Your task to perform on an android device: Search for the best rated 3d printer on Amazon. Image 0: 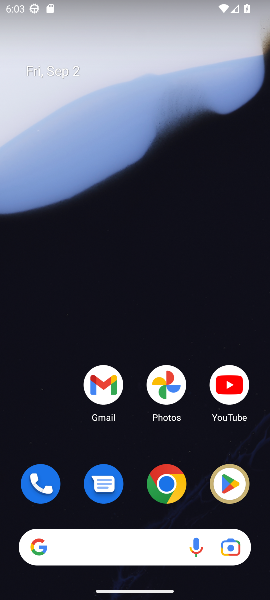
Step 0: click (166, 478)
Your task to perform on an android device: Search for the best rated 3d printer on Amazon. Image 1: 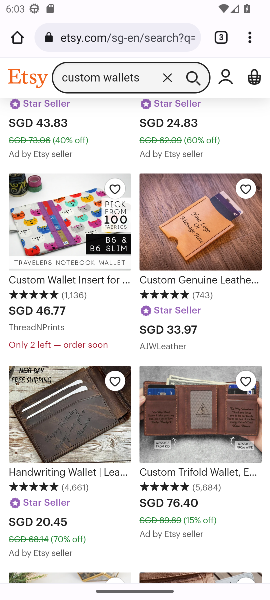
Step 1: click (161, 33)
Your task to perform on an android device: Search for the best rated 3d printer on Amazon. Image 2: 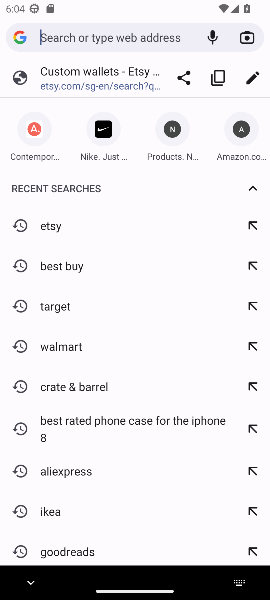
Step 2: type "Amazon"
Your task to perform on an android device: Search for the best rated 3d printer on Amazon. Image 3: 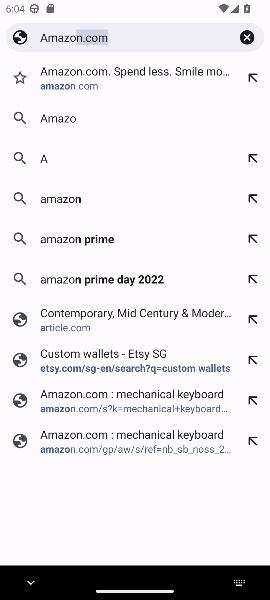
Step 3: press enter
Your task to perform on an android device: Search for the best rated 3d printer on Amazon. Image 4: 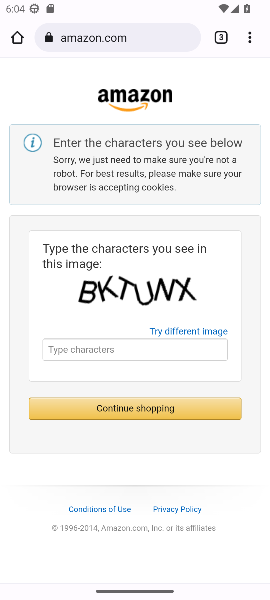
Step 4: press back button
Your task to perform on an android device: Search for the best rated 3d printer on Amazon. Image 5: 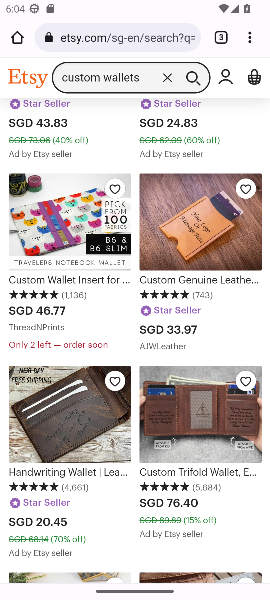
Step 5: click (153, 34)
Your task to perform on an android device: Search for the best rated 3d printer on Amazon. Image 6: 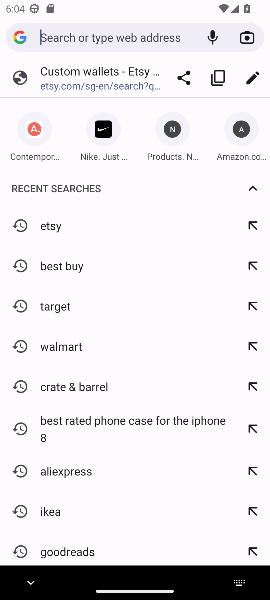
Step 6: type "Amazon"
Your task to perform on an android device: Search for the best rated 3d printer on Amazon. Image 7: 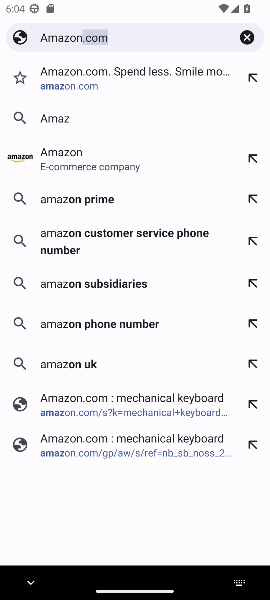
Step 7: press enter
Your task to perform on an android device: Search for the best rated 3d printer on Amazon. Image 8: 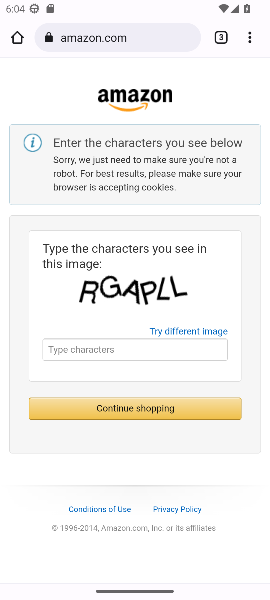
Step 8: drag from (202, 148) to (196, 464)
Your task to perform on an android device: Search for the best rated 3d printer on Amazon. Image 9: 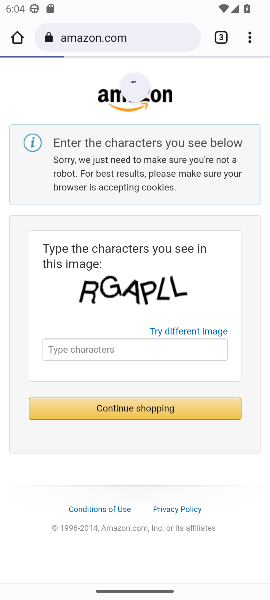
Step 9: click (156, 404)
Your task to perform on an android device: Search for the best rated 3d printer on Amazon. Image 10: 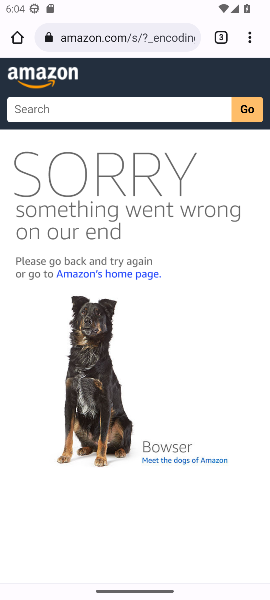
Step 10: click (122, 115)
Your task to perform on an android device: Search for the best rated 3d printer on Amazon. Image 11: 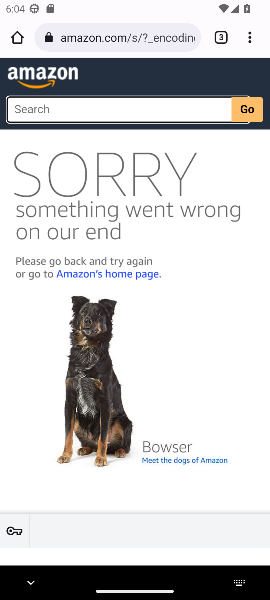
Step 11: type "3d printer"
Your task to perform on an android device: Search for the best rated 3d printer on Amazon. Image 12: 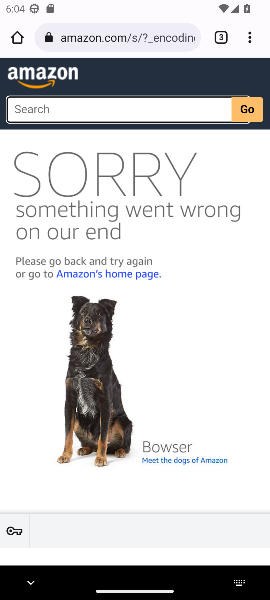
Step 12: press enter
Your task to perform on an android device: Search for the best rated 3d printer on Amazon. Image 13: 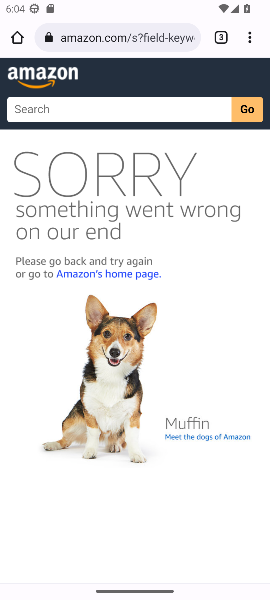
Step 13: drag from (143, 435) to (168, 173)
Your task to perform on an android device: Search for the best rated 3d printer on Amazon. Image 14: 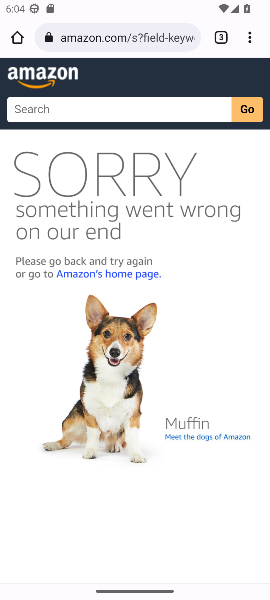
Step 14: press back button
Your task to perform on an android device: Search for the best rated 3d printer on Amazon. Image 15: 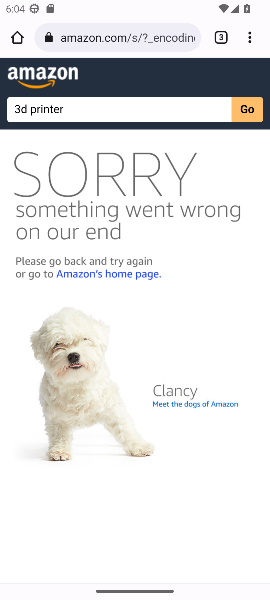
Step 15: press back button
Your task to perform on an android device: Search for the best rated 3d printer on Amazon. Image 16: 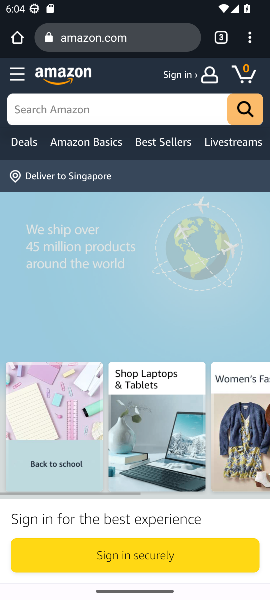
Step 16: drag from (113, 455) to (221, 182)
Your task to perform on an android device: Search for the best rated 3d printer on Amazon. Image 17: 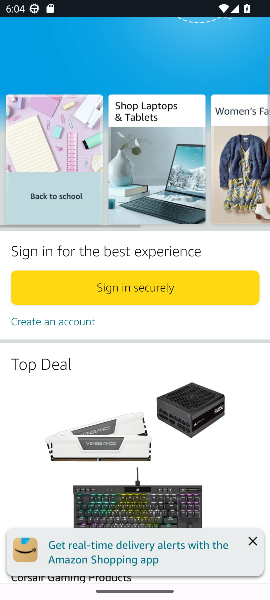
Step 17: drag from (218, 220) to (148, 509)
Your task to perform on an android device: Search for the best rated 3d printer on Amazon. Image 18: 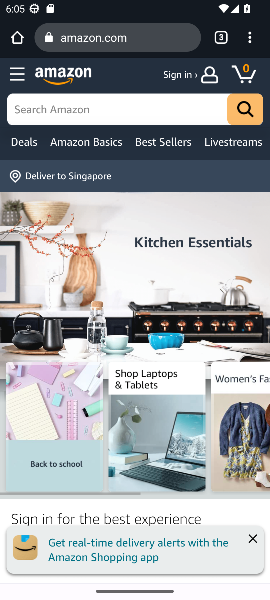
Step 18: click (156, 108)
Your task to perform on an android device: Search for the best rated 3d printer on Amazon. Image 19: 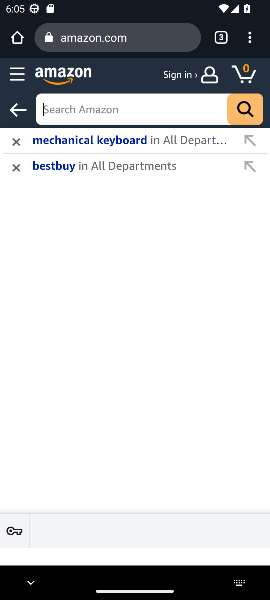
Step 19: type "3d printer"
Your task to perform on an android device: Search for the best rated 3d printer on Amazon. Image 20: 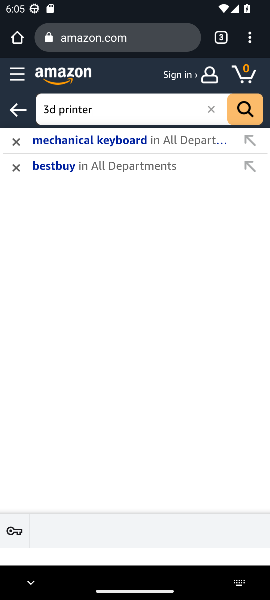
Step 20: press enter
Your task to perform on an android device: Search for the best rated 3d printer on Amazon. Image 21: 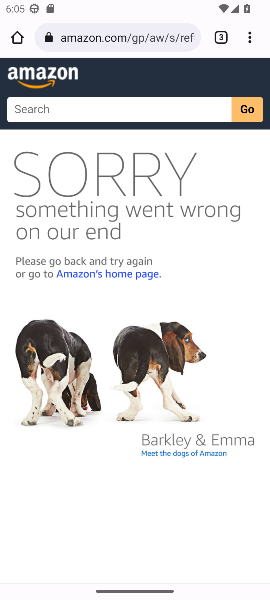
Step 21: click (129, 274)
Your task to perform on an android device: Search for the best rated 3d printer on Amazon. Image 22: 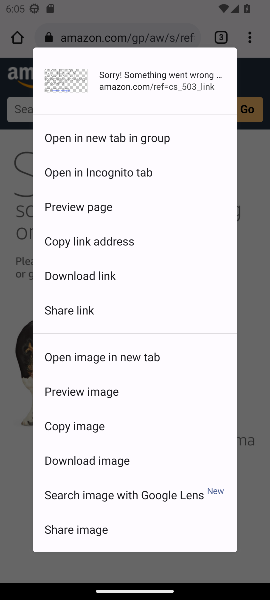
Step 22: click (244, 370)
Your task to perform on an android device: Search for the best rated 3d printer on Amazon. Image 23: 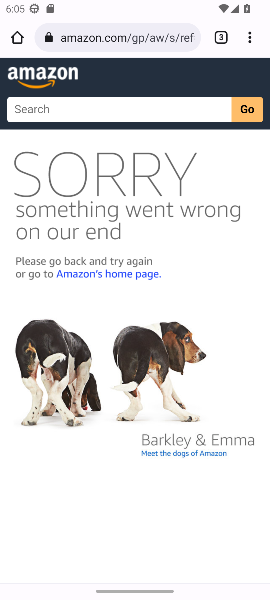
Step 23: drag from (178, 411) to (212, 234)
Your task to perform on an android device: Search for the best rated 3d printer on Amazon. Image 24: 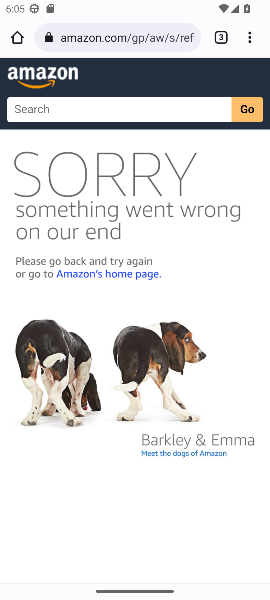
Step 24: press back button
Your task to perform on an android device: Search for the best rated 3d printer on Amazon. Image 25: 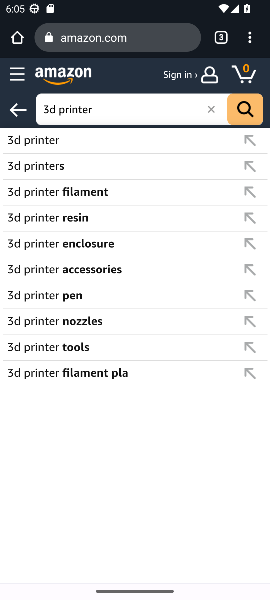
Step 25: press back button
Your task to perform on an android device: Search for the best rated 3d printer on Amazon. Image 26: 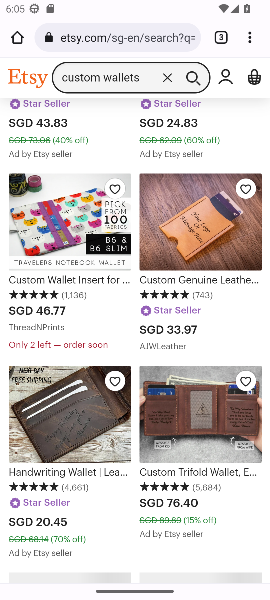
Step 26: click (166, 35)
Your task to perform on an android device: Search for the best rated 3d printer on Amazon. Image 27: 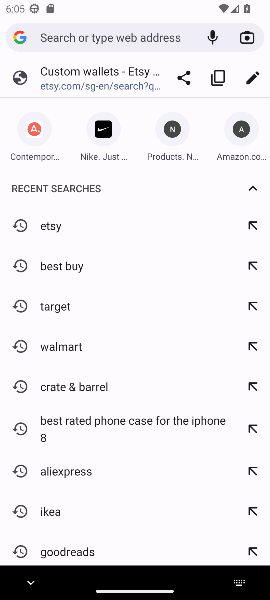
Step 27: type " Amazon"
Your task to perform on an android device: Search for the best rated 3d printer on Amazon. Image 28: 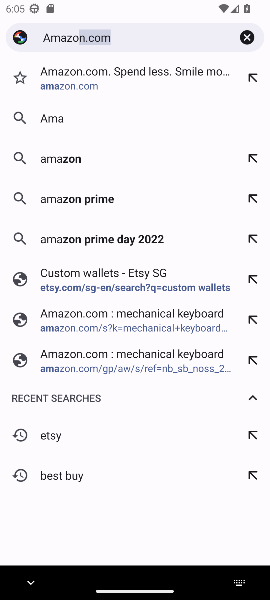
Step 28: press enter
Your task to perform on an android device: Search for the best rated 3d printer on Amazon. Image 29: 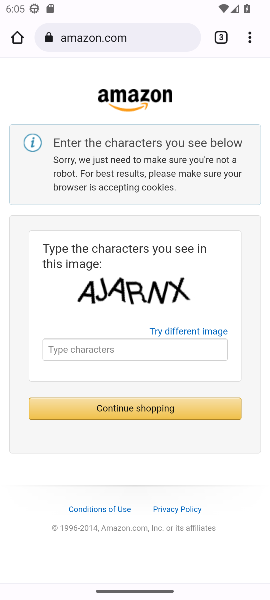
Step 29: click (137, 345)
Your task to perform on an android device: Search for the best rated 3d printer on Amazon. Image 30: 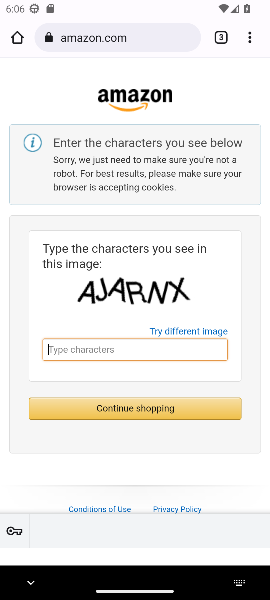
Step 30: type "AJARNX"
Your task to perform on an android device: Search for the best rated 3d printer on Amazon. Image 31: 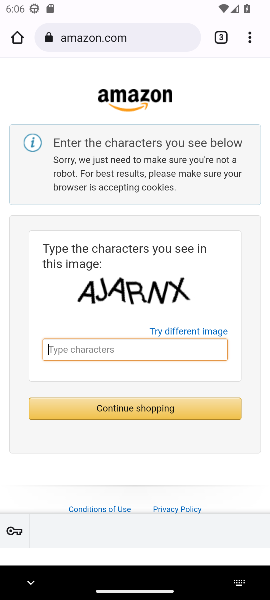
Step 31: press enter
Your task to perform on an android device: Search for the best rated 3d printer on Amazon. Image 32: 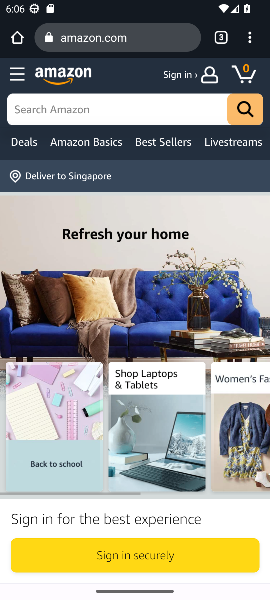
Step 32: click (170, 112)
Your task to perform on an android device: Search for the best rated 3d printer on Amazon. Image 33: 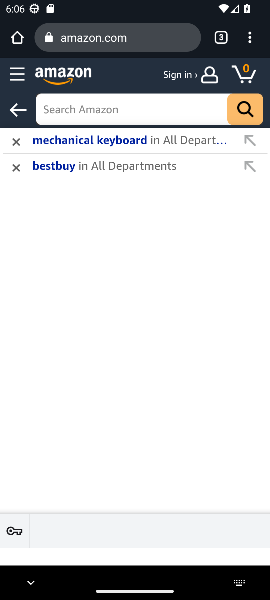
Step 33: type "3d printer"
Your task to perform on an android device: Search for the best rated 3d printer on Amazon. Image 34: 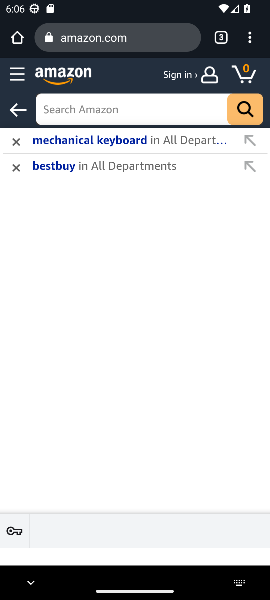
Step 34: press enter
Your task to perform on an android device: Search for the best rated 3d printer on Amazon. Image 35: 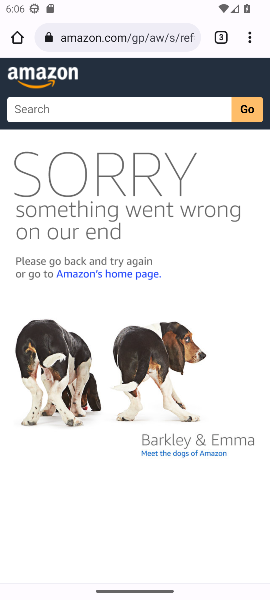
Step 35: task complete